Your task to perform on an android device: change the clock display to analog Image 0: 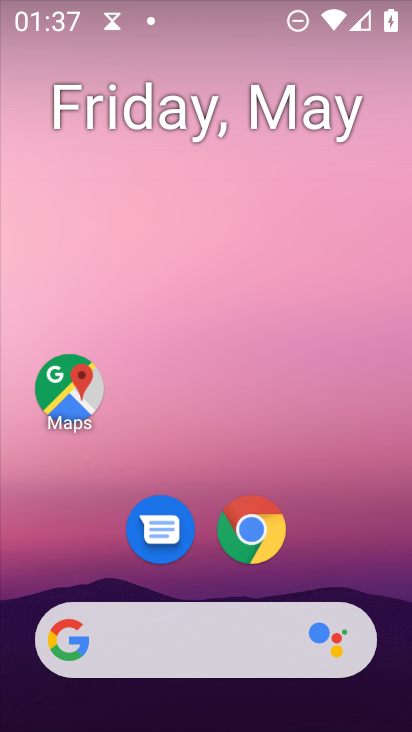
Step 0: drag from (322, 549) to (319, 225)
Your task to perform on an android device: change the clock display to analog Image 1: 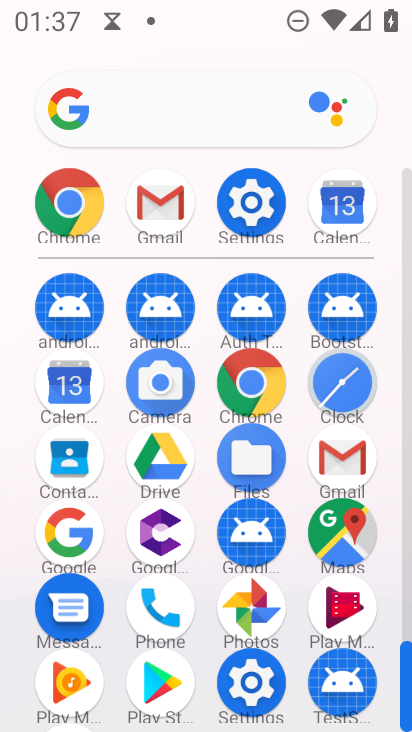
Step 1: click (325, 387)
Your task to perform on an android device: change the clock display to analog Image 2: 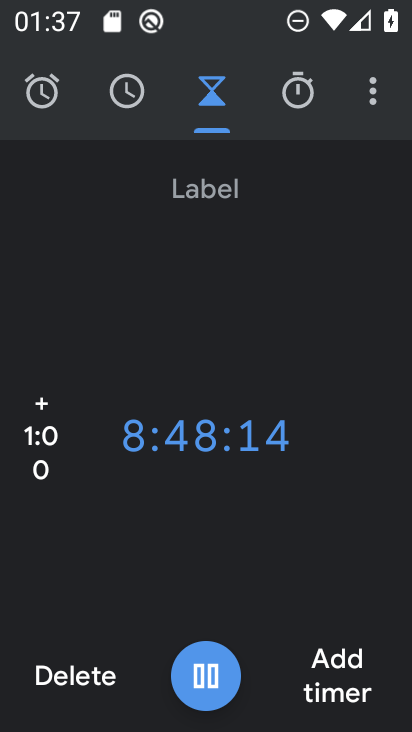
Step 2: click (352, 94)
Your task to perform on an android device: change the clock display to analog Image 3: 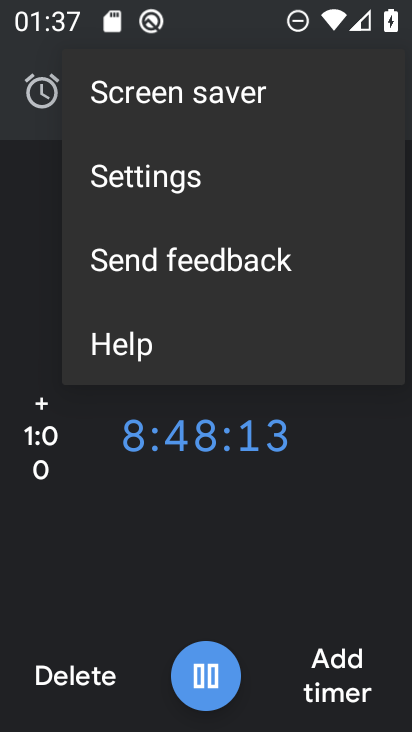
Step 3: click (176, 167)
Your task to perform on an android device: change the clock display to analog Image 4: 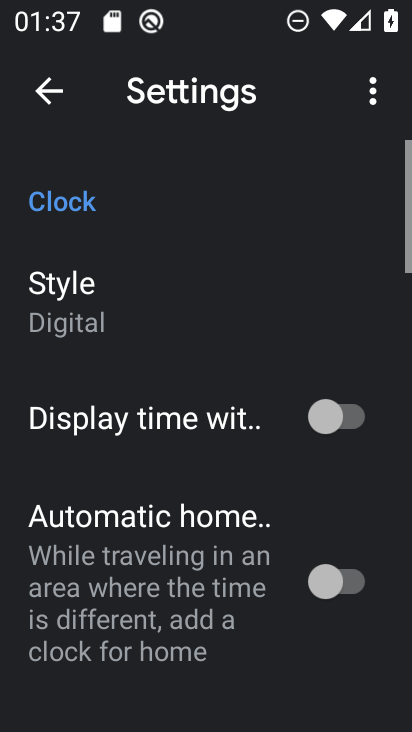
Step 4: click (70, 289)
Your task to perform on an android device: change the clock display to analog Image 5: 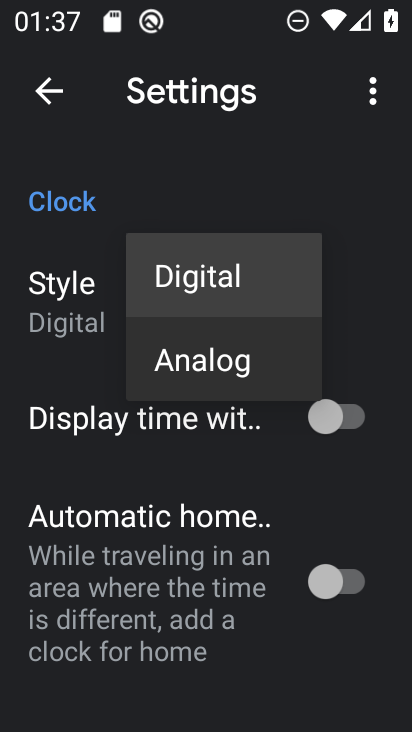
Step 5: click (185, 342)
Your task to perform on an android device: change the clock display to analog Image 6: 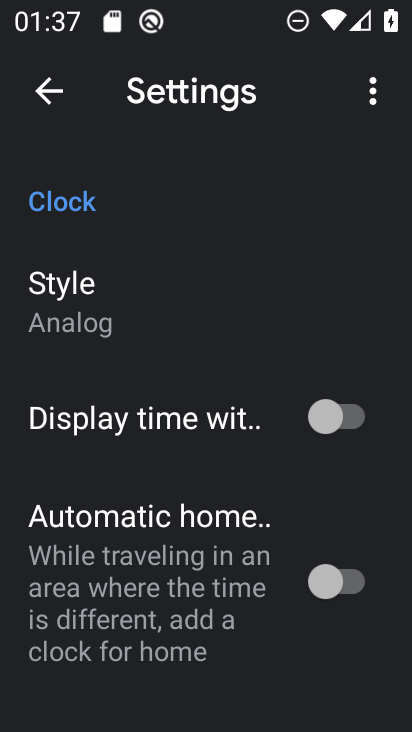
Step 6: task complete